Your task to perform on an android device: Open calendar and show me the third week of next month Image 0: 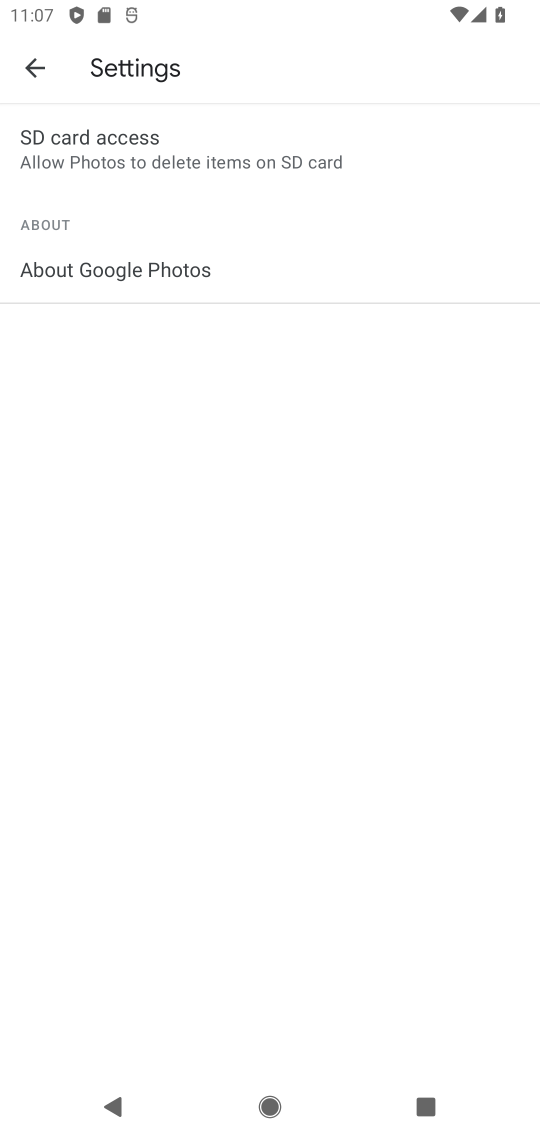
Step 0: press home button
Your task to perform on an android device: Open calendar and show me the third week of next month Image 1: 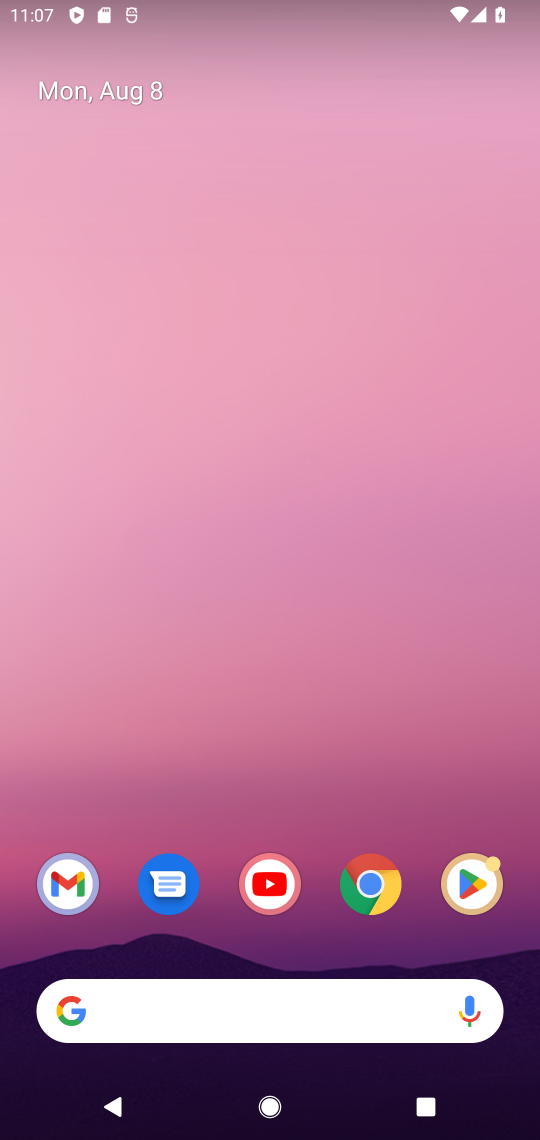
Step 1: drag from (246, 497) to (257, 436)
Your task to perform on an android device: Open calendar and show me the third week of next month Image 2: 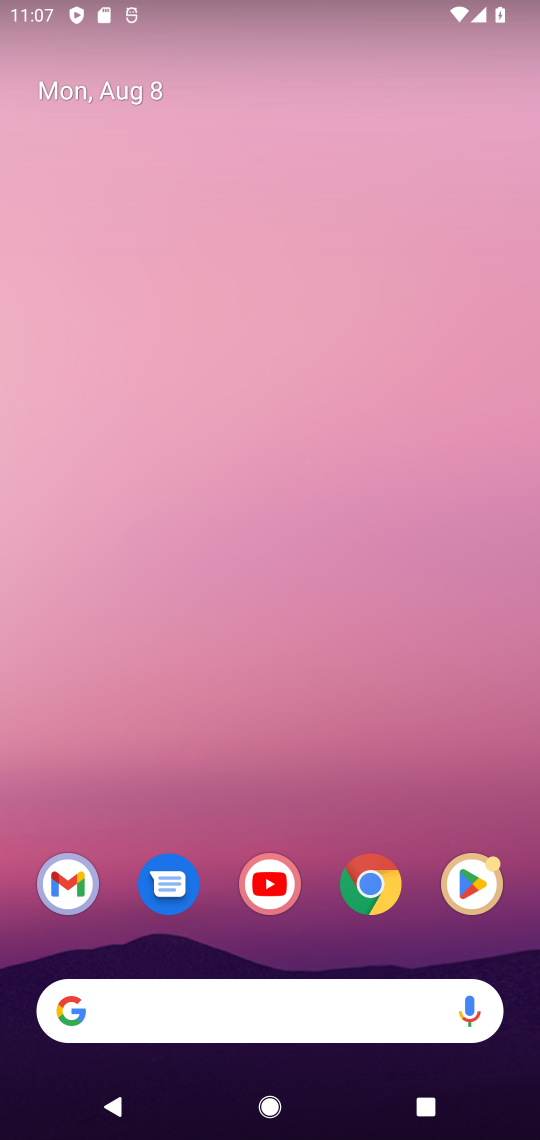
Step 2: drag from (217, 823) to (237, 347)
Your task to perform on an android device: Open calendar and show me the third week of next month Image 3: 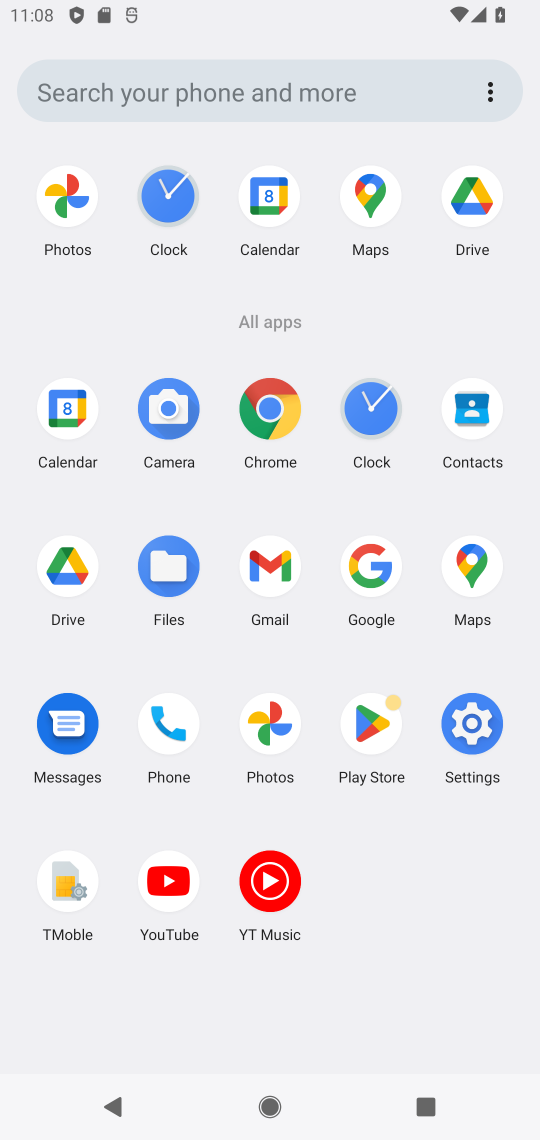
Step 3: click (79, 427)
Your task to perform on an android device: Open calendar and show me the third week of next month Image 4: 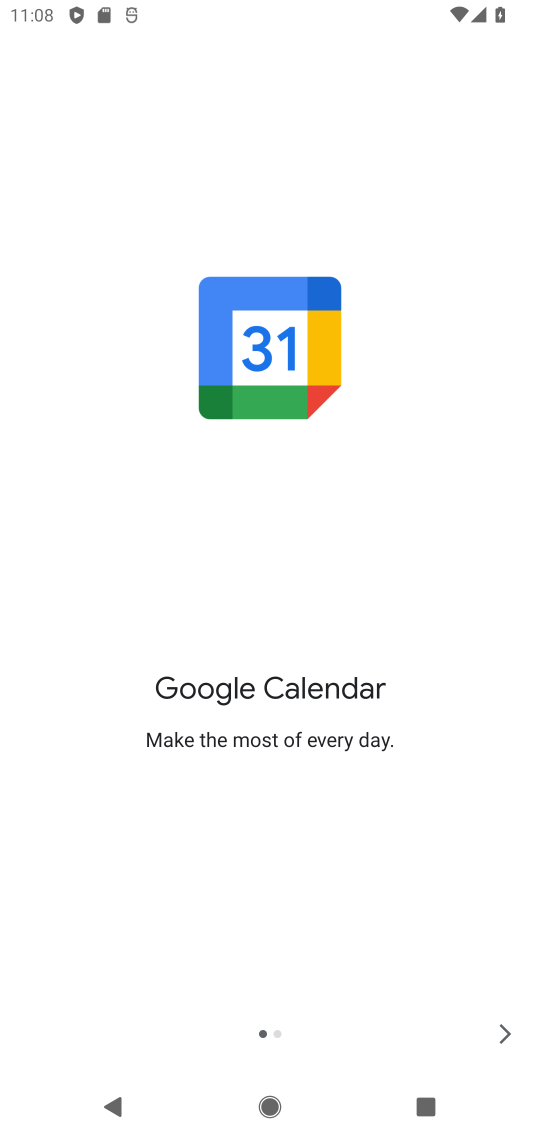
Step 4: click (510, 1034)
Your task to perform on an android device: Open calendar and show me the third week of next month Image 5: 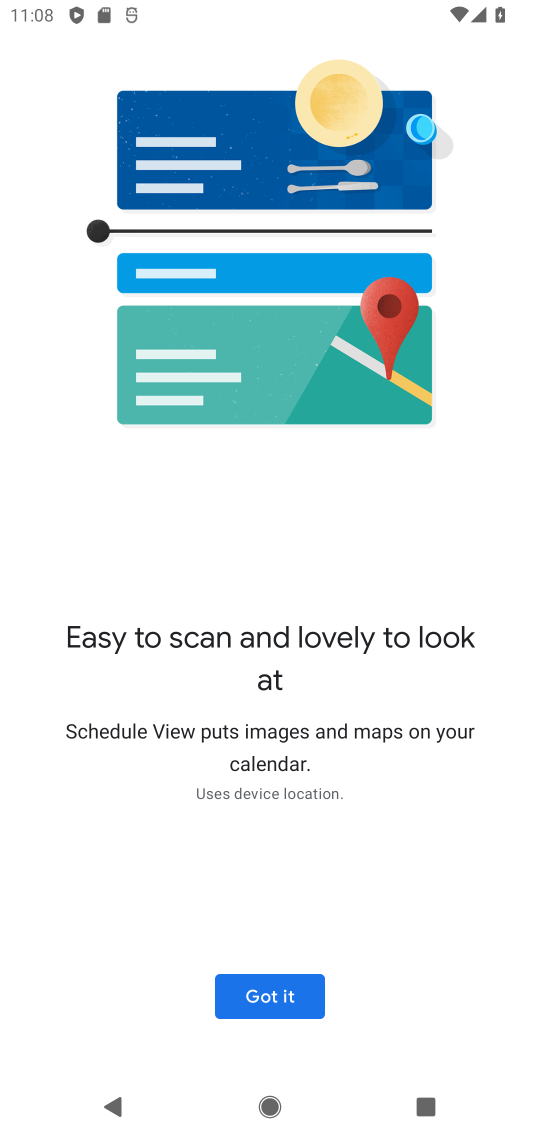
Step 5: click (253, 1002)
Your task to perform on an android device: Open calendar and show me the third week of next month Image 6: 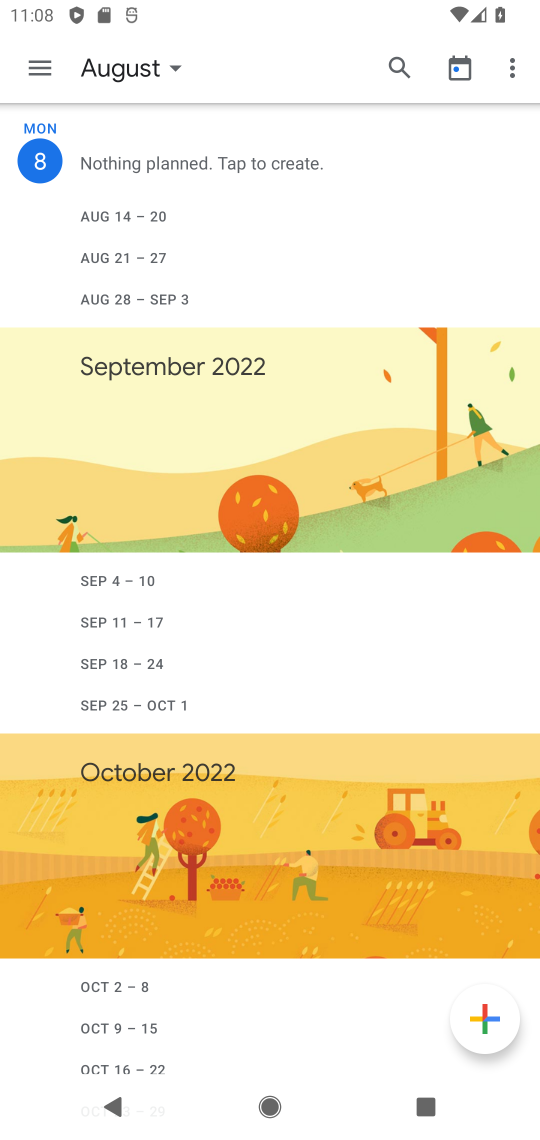
Step 6: click (103, 71)
Your task to perform on an android device: Open calendar and show me the third week of next month Image 7: 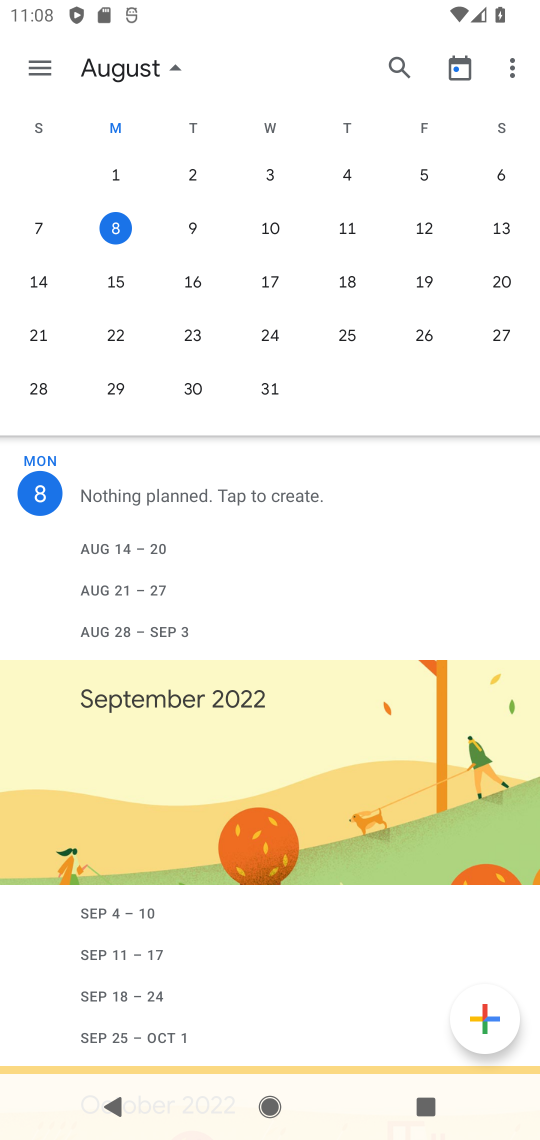
Step 7: click (50, 65)
Your task to perform on an android device: Open calendar and show me the third week of next month Image 8: 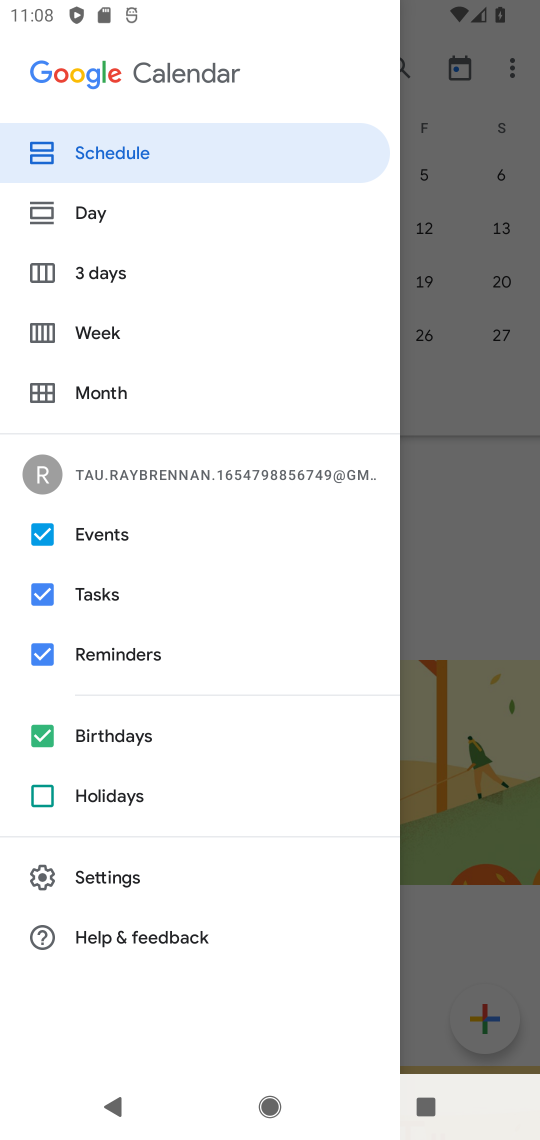
Step 8: click (108, 332)
Your task to perform on an android device: Open calendar and show me the third week of next month Image 9: 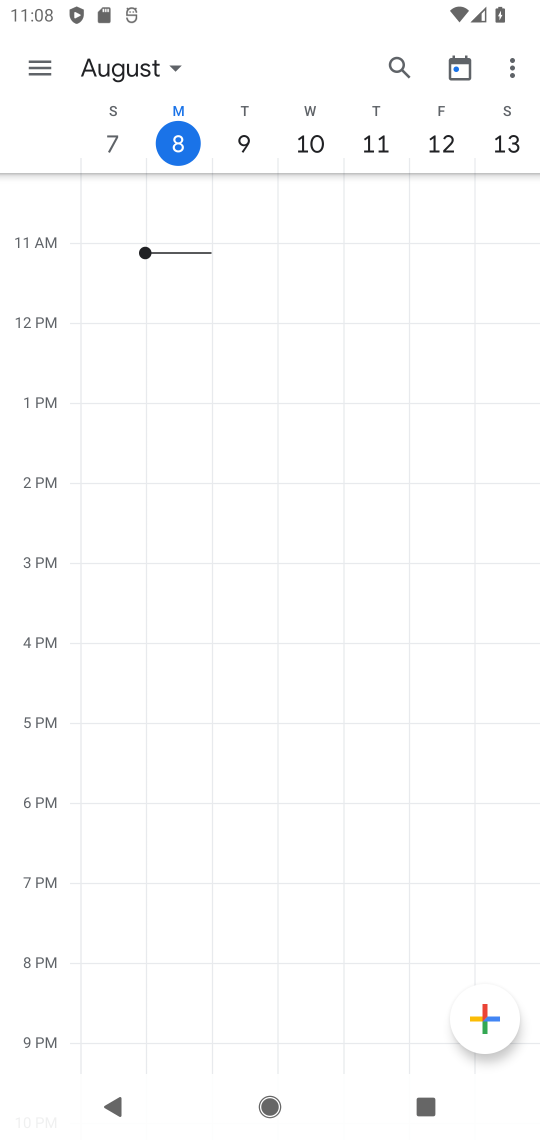
Step 9: click (119, 61)
Your task to perform on an android device: Open calendar and show me the third week of next month Image 10: 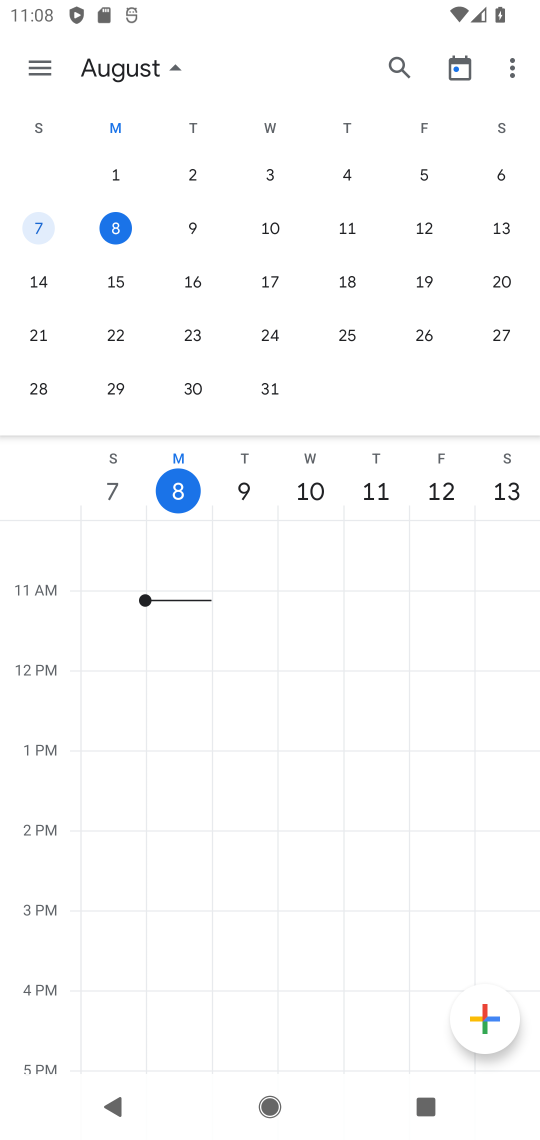
Step 10: drag from (457, 250) to (28, 300)
Your task to perform on an android device: Open calendar and show me the third week of next month Image 11: 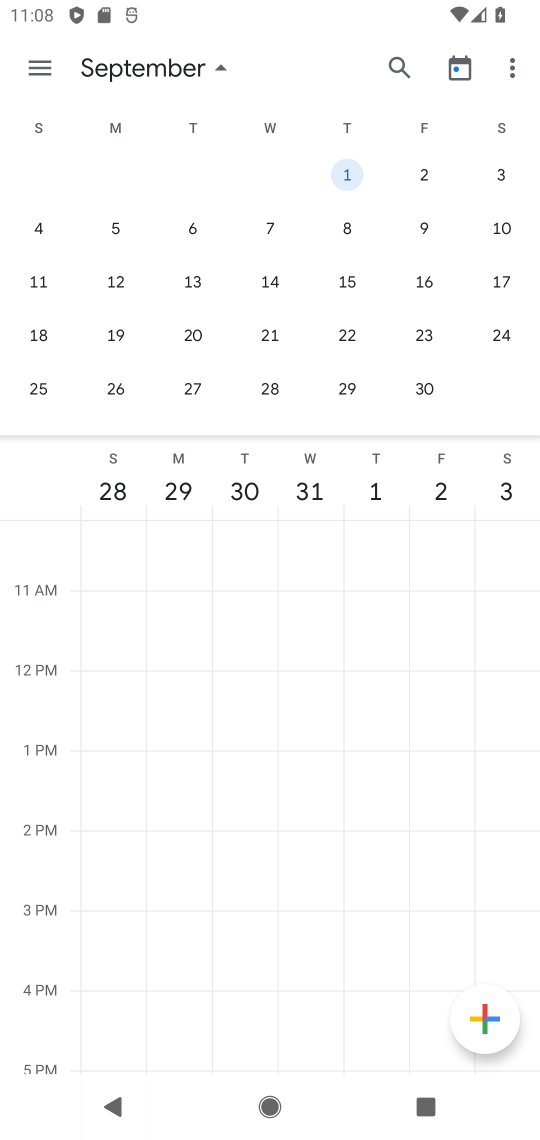
Step 11: click (41, 282)
Your task to perform on an android device: Open calendar and show me the third week of next month Image 12: 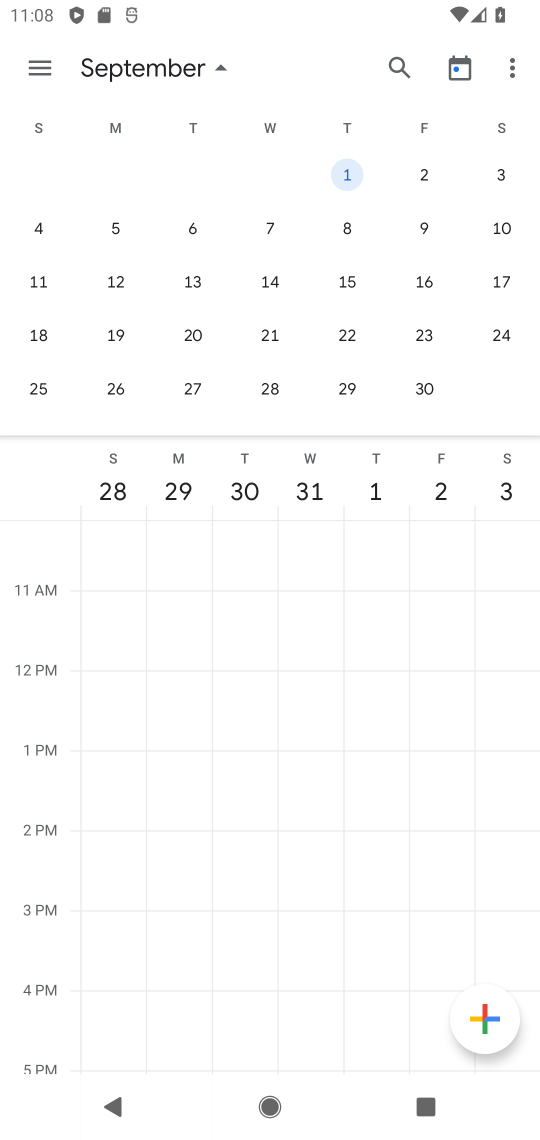
Step 12: click (41, 282)
Your task to perform on an android device: Open calendar and show me the third week of next month Image 13: 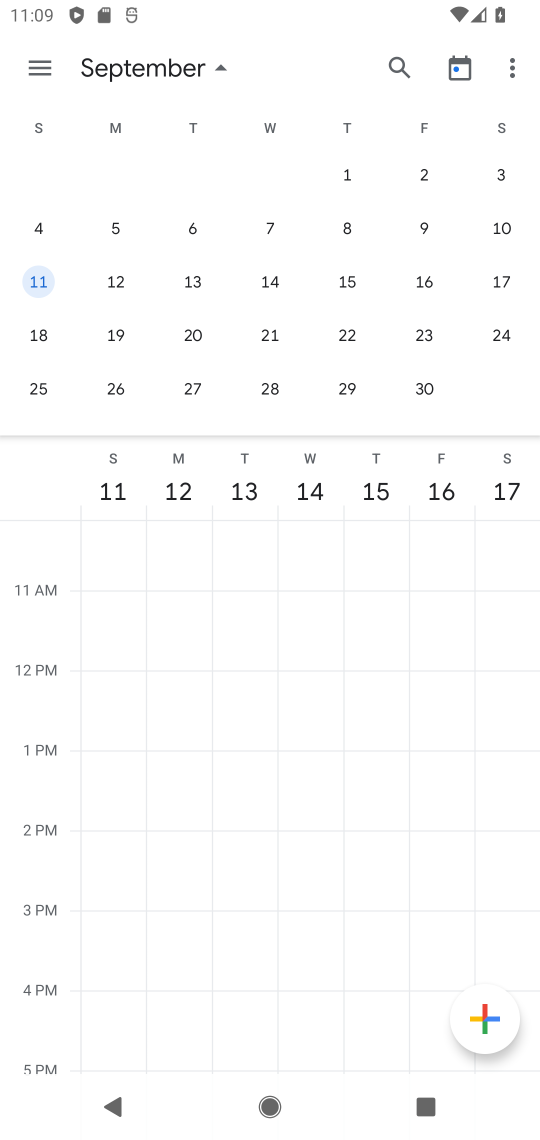
Step 13: task complete